Your task to perform on an android device: Open eBay Image 0: 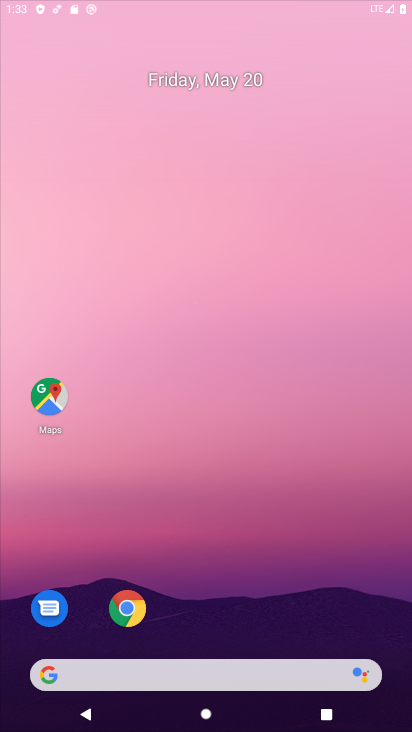
Step 0: click (144, 615)
Your task to perform on an android device: Open eBay Image 1: 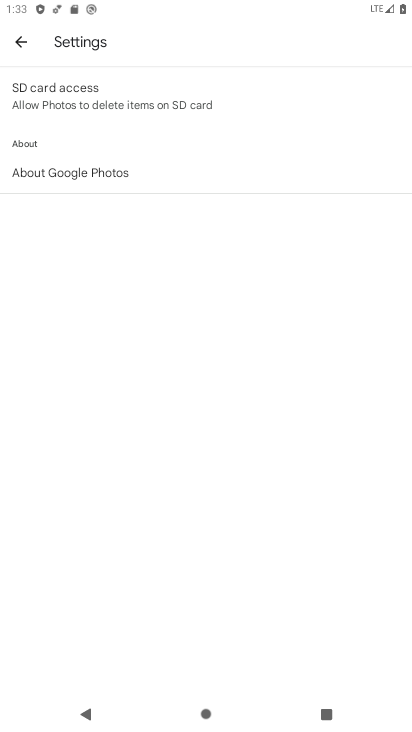
Step 1: press home button
Your task to perform on an android device: Open eBay Image 2: 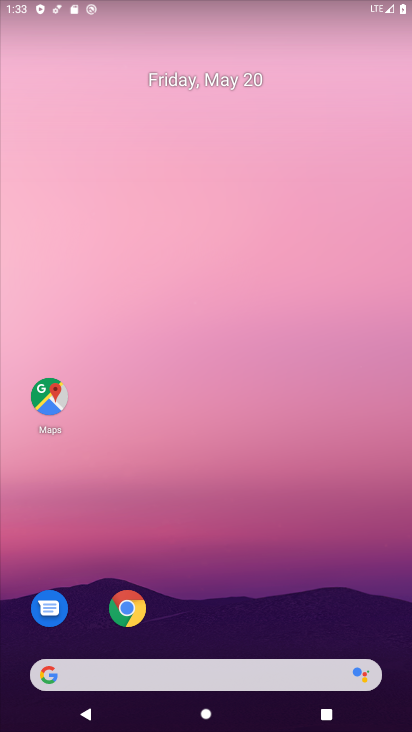
Step 2: drag from (171, 517) to (150, 229)
Your task to perform on an android device: Open eBay Image 3: 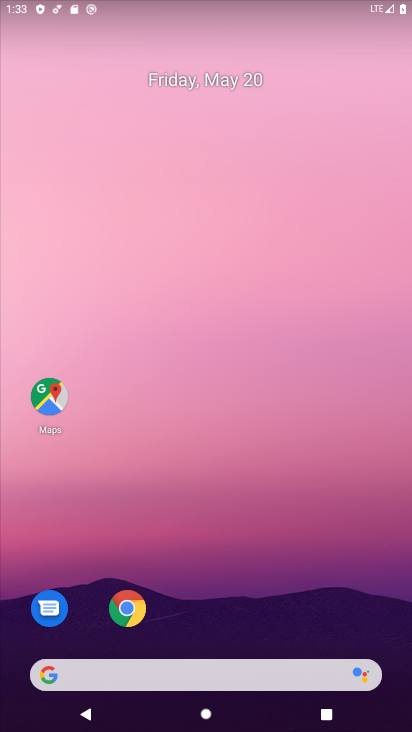
Step 3: drag from (205, 592) to (189, 205)
Your task to perform on an android device: Open eBay Image 4: 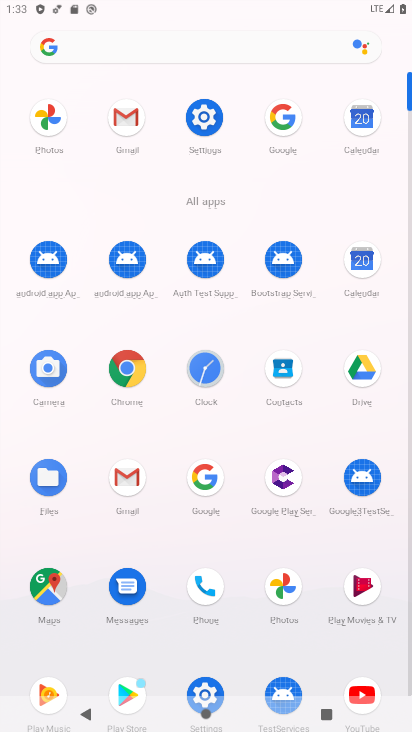
Step 4: click (210, 478)
Your task to perform on an android device: Open eBay Image 5: 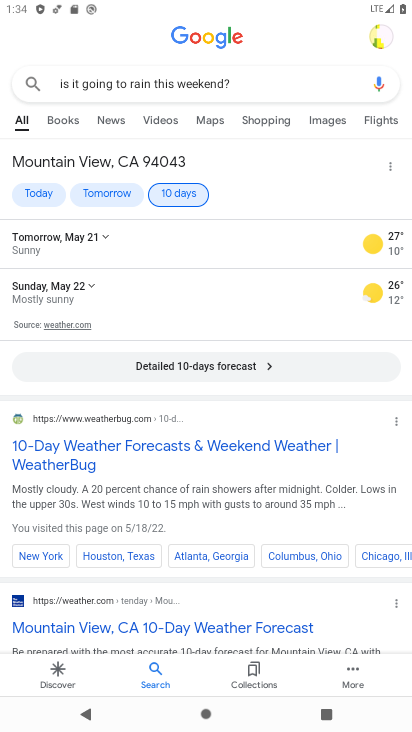
Step 5: click (237, 88)
Your task to perform on an android device: Open eBay Image 6: 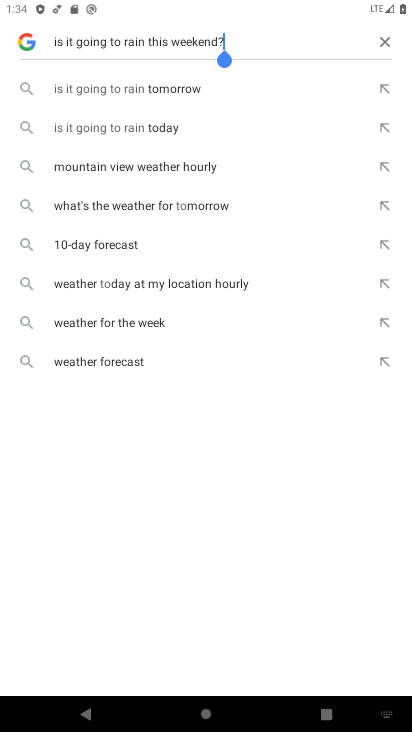
Step 6: click (389, 48)
Your task to perform on an android device: Open eBay Image 7: 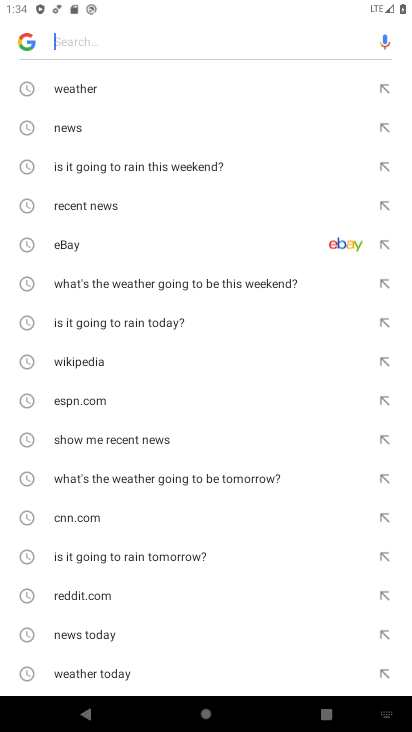
Step 7: click (304, 241)
Your task to perform on an android device: Open eBay Image 8: 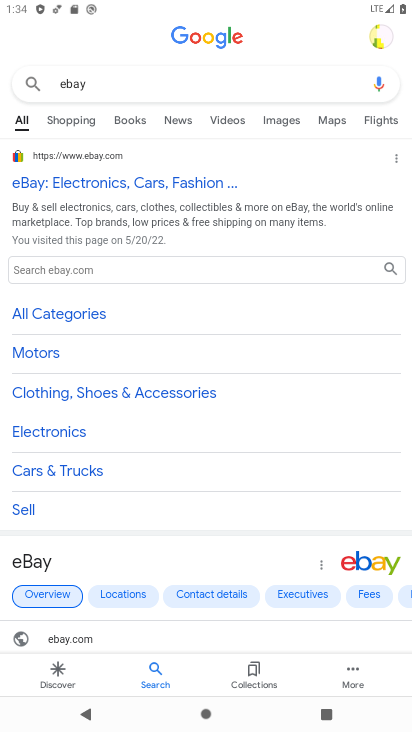
Step 8: task complete